Your task to perform on an android device: Go to Google maps Image 0: 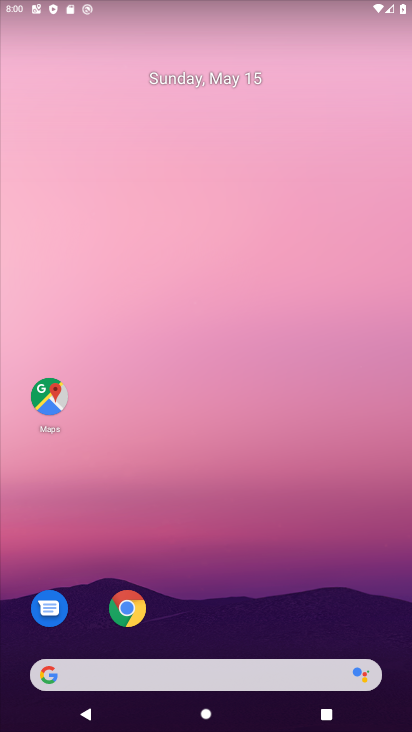
Step 0: drag from (333, 717) to (143, 110)
Your task to perform on an android device: Go to Google maps Image 1: 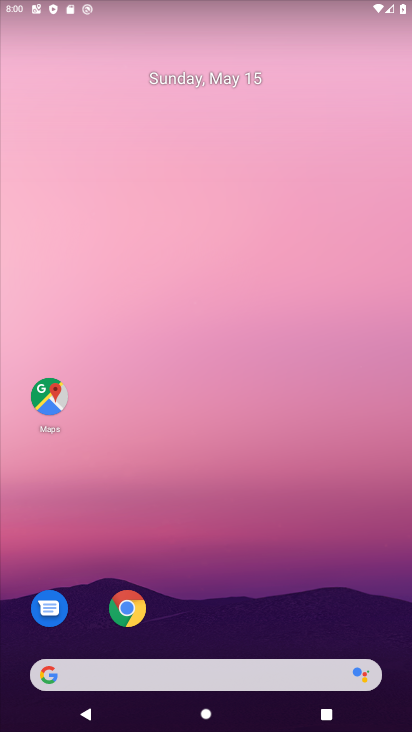
Step 1: drag from (263, 621) to (190, 54)
Your task to perform on an android device: Go to Google maps Image 2: 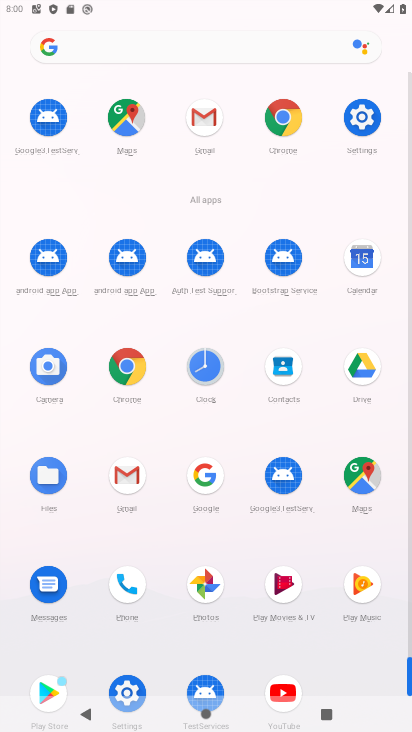
Step 2: click (122, 122)
Your task to perform on an android device: Go to Google maps Image 3: 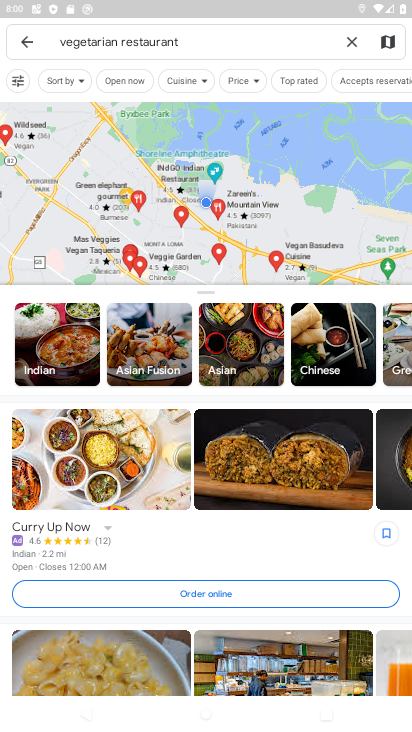
Step 3: task complete